Your task to perform on an android device: Clear the cart on costco.com. Search for dell xps on costco.com, select the first entry, and add it to the cart. Image 0: 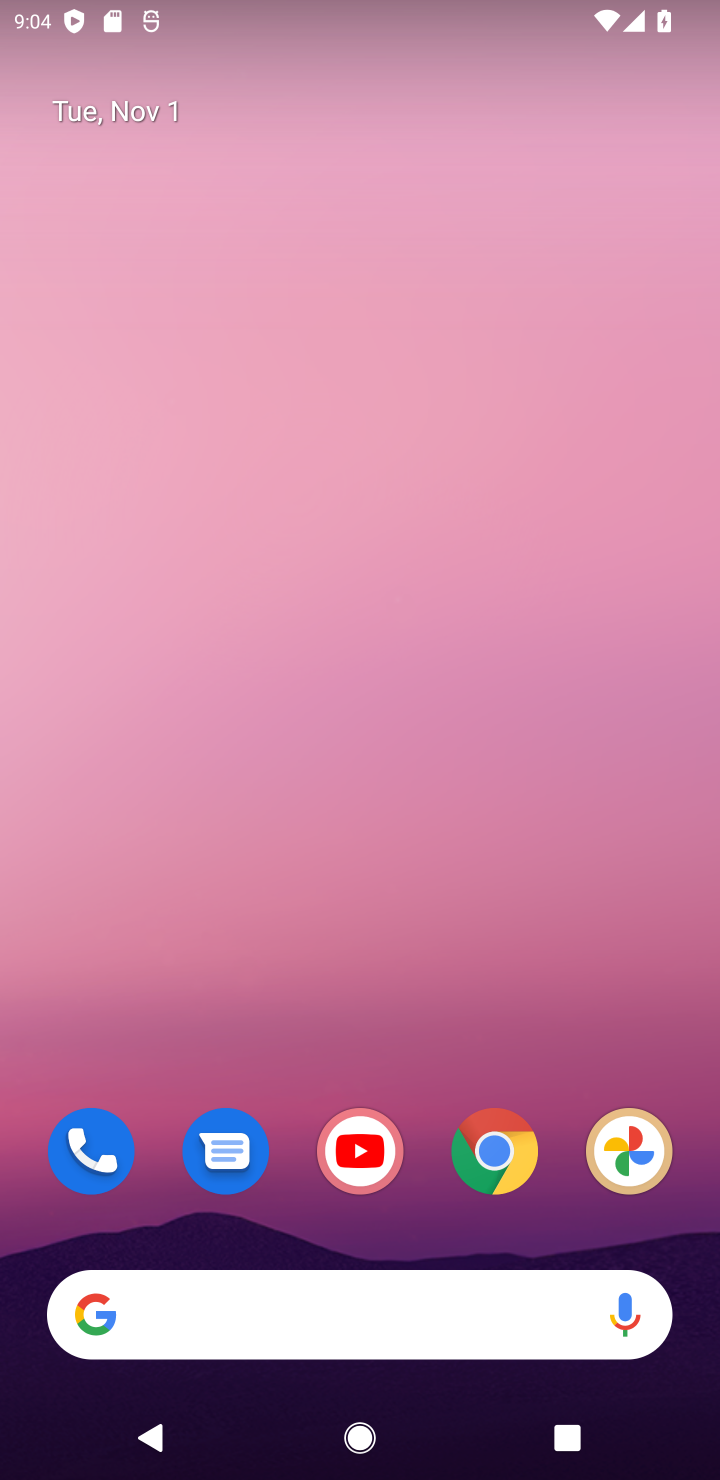
Step 0: click (479, 1148)
Your task to perform on an android device: Clear the cart on costco.com. Search for dell xps on costco.com, select the first entry, and add it to the cart. Image 1: 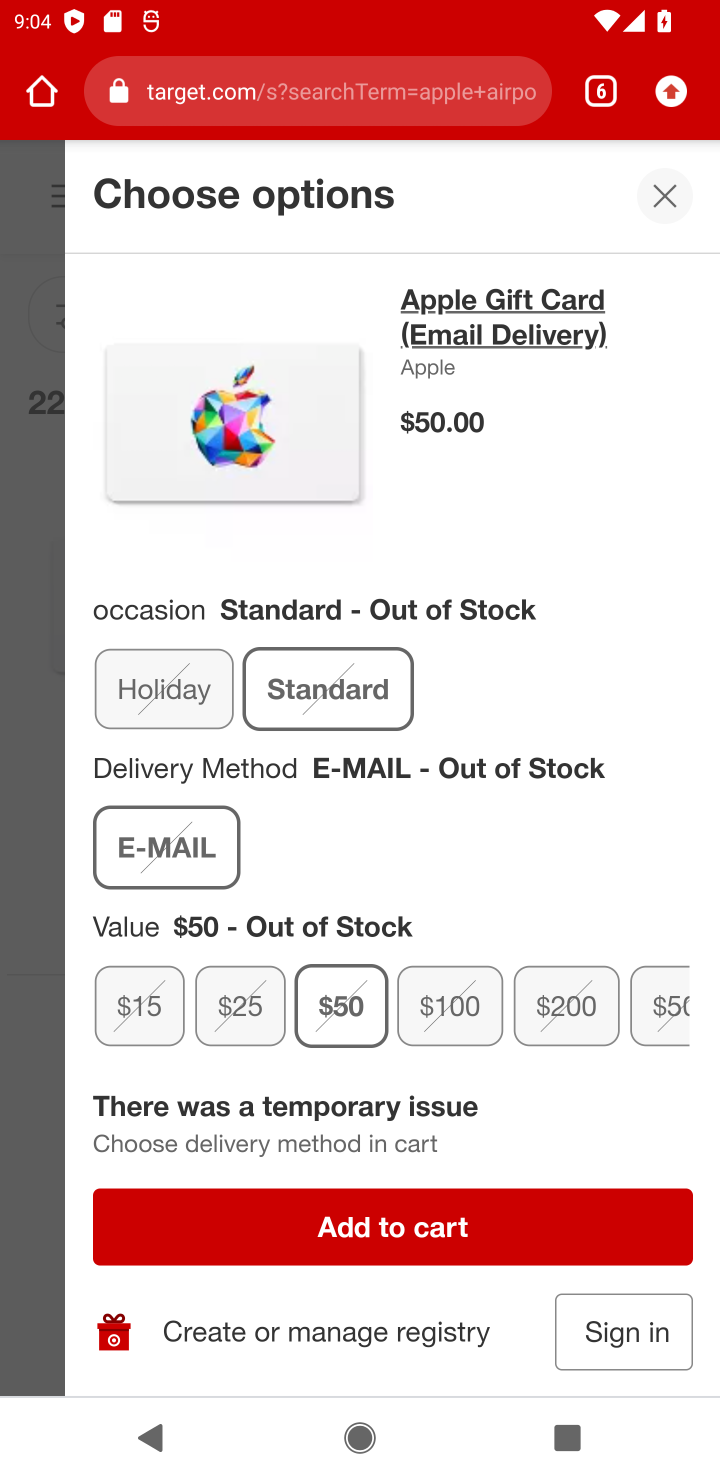
Step 1: click (594, 101)
Your task to perform on an android device: Clear the cart on costco.com. Search for dell xps on costco.com, select the first entry, and add it to the cart. Image 2: 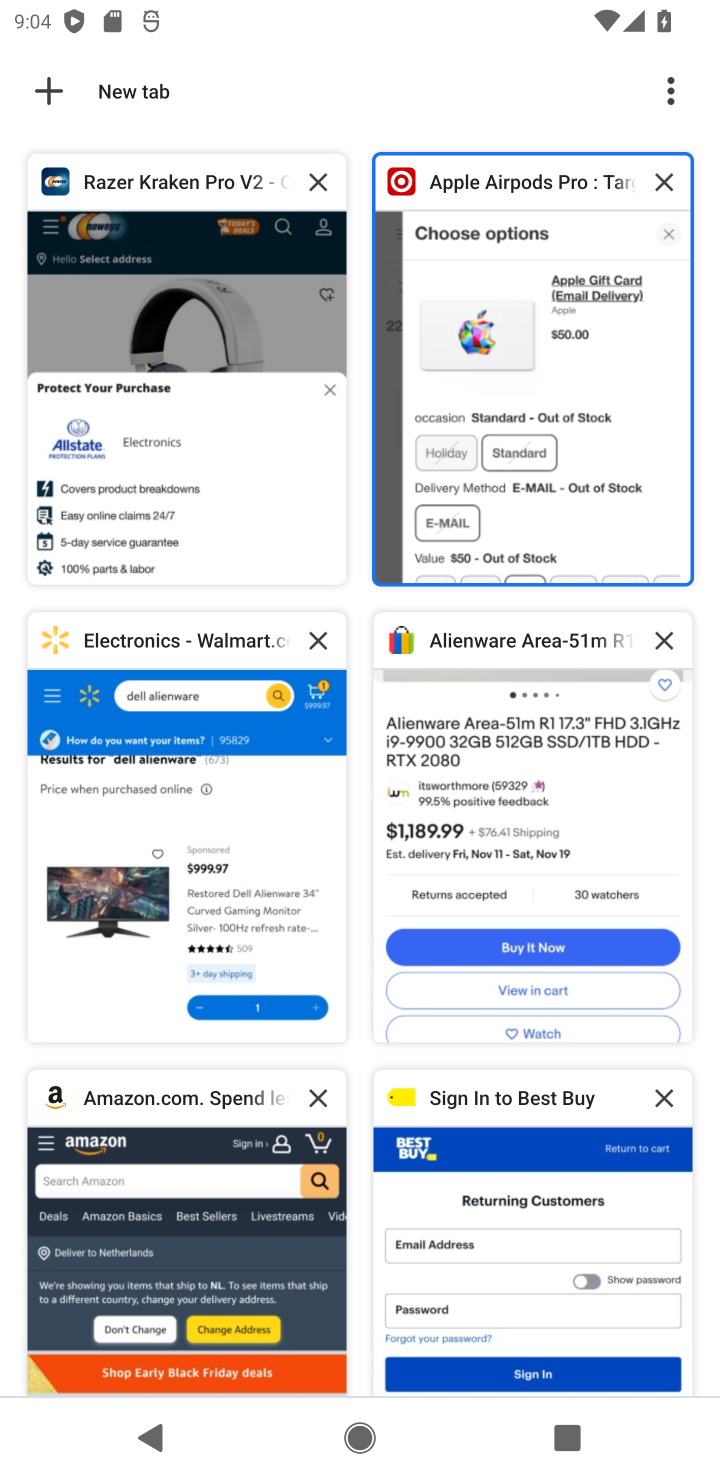
Step 2: click (52, 95)
Your task to perform on an android device: Clear the cart on costco.com. Search for dell xps on costco.com, select the first entry, and add it to the cart. Image 3: 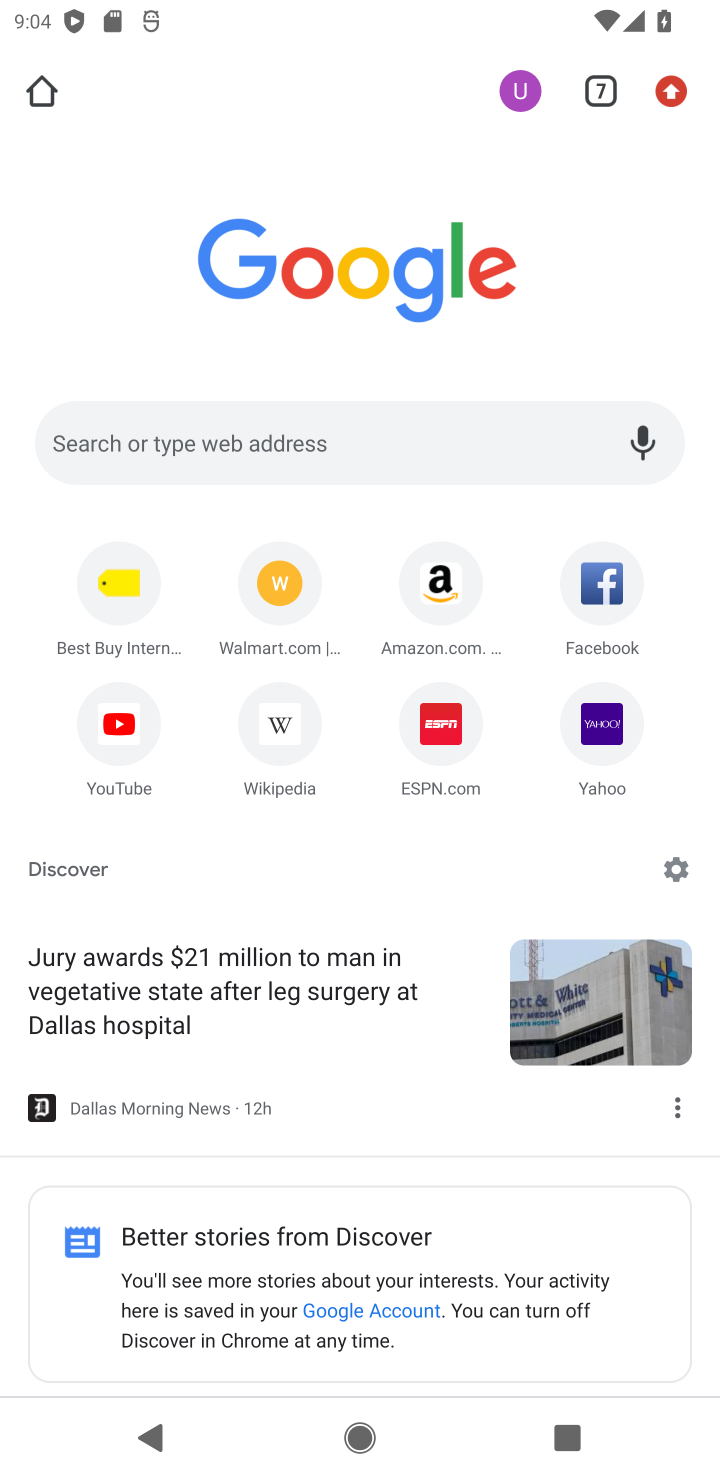
Step 3: click (388, 417)
Your task to perform on an android device: Clear the cart on costco.com. Search for dell xps on costco.com, select the first entry, and add it to the cart. Image 4: 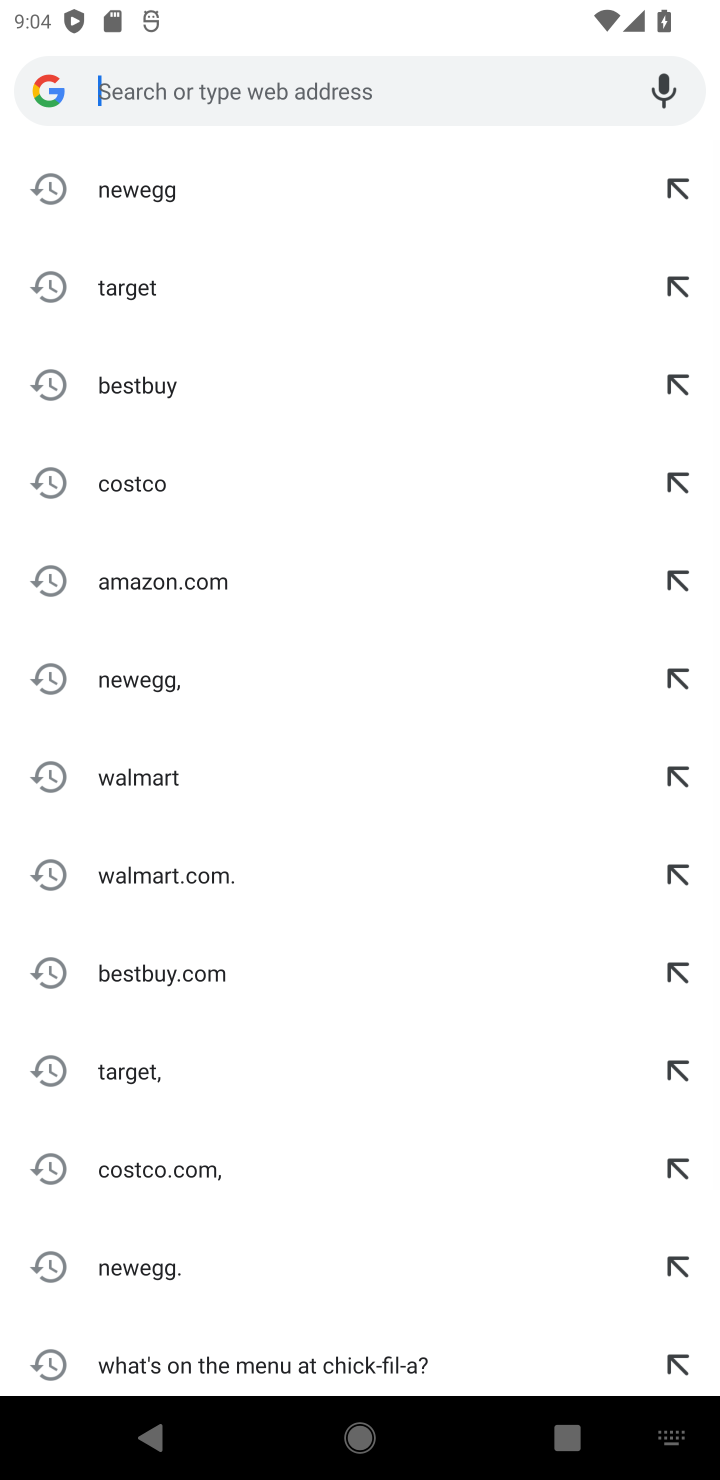
Step 4: type "costco"
Your task to perform on an android device: Clear the cart on costco.com. Search for dell xps on costco.com, select the first entry, and add it to the cart. Image 5: 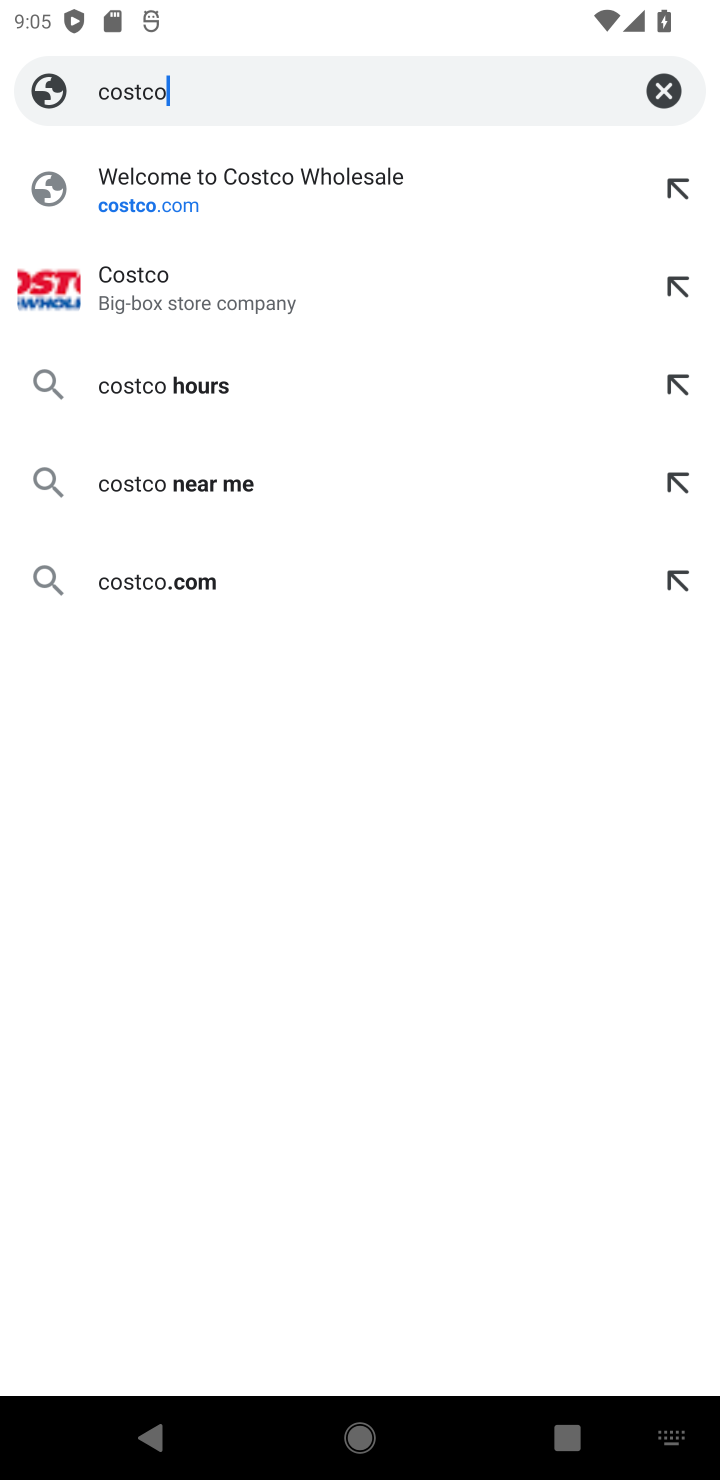
Step 5: click (155, 289)
Your task to perform on an android device: Clear the cart on costco.com. Search for dell xps on costco.com, select the first entry, and add it to the cart. Image 6: 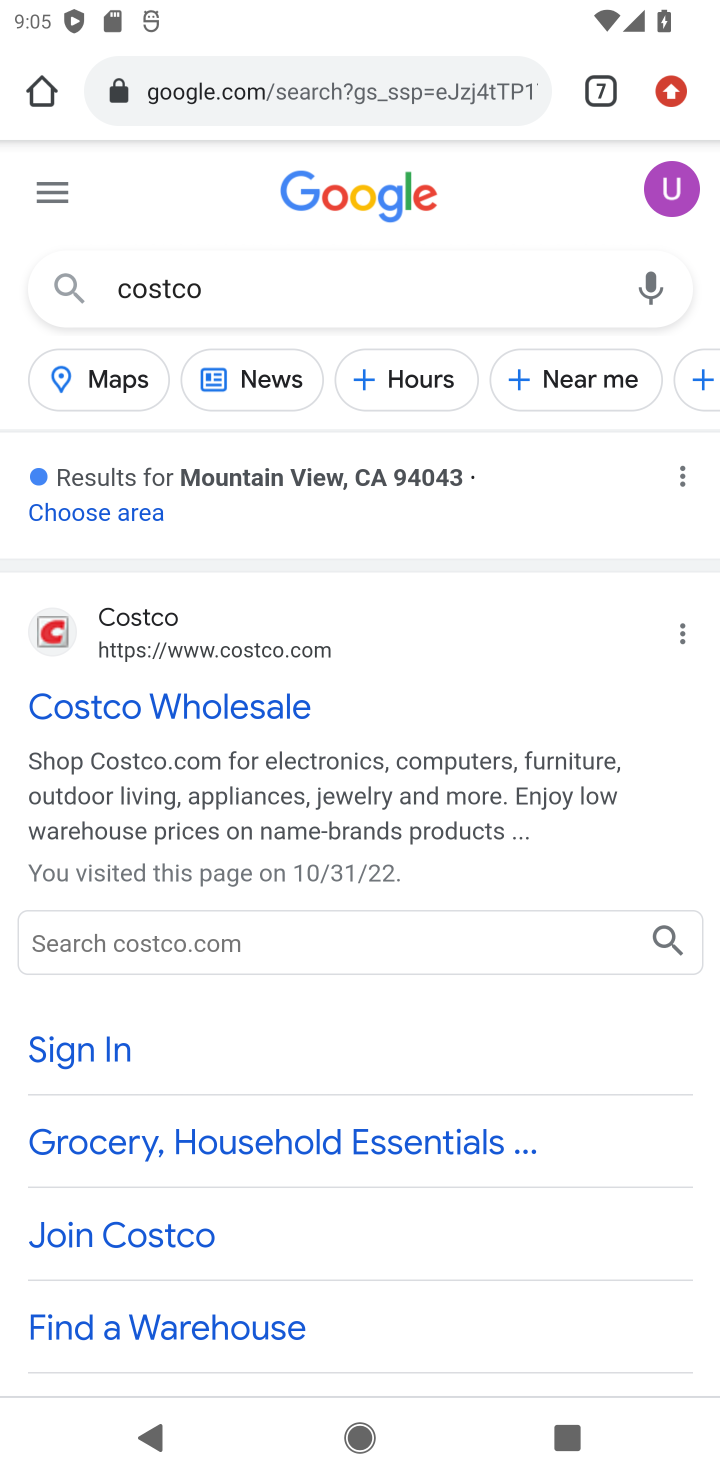
Step 6: click (78, 699)
Your task to perform on an android device: Clear the cart on costco.com. Search for dell xps on costco.com, select the first entry, and add it to the cart. Image 7: 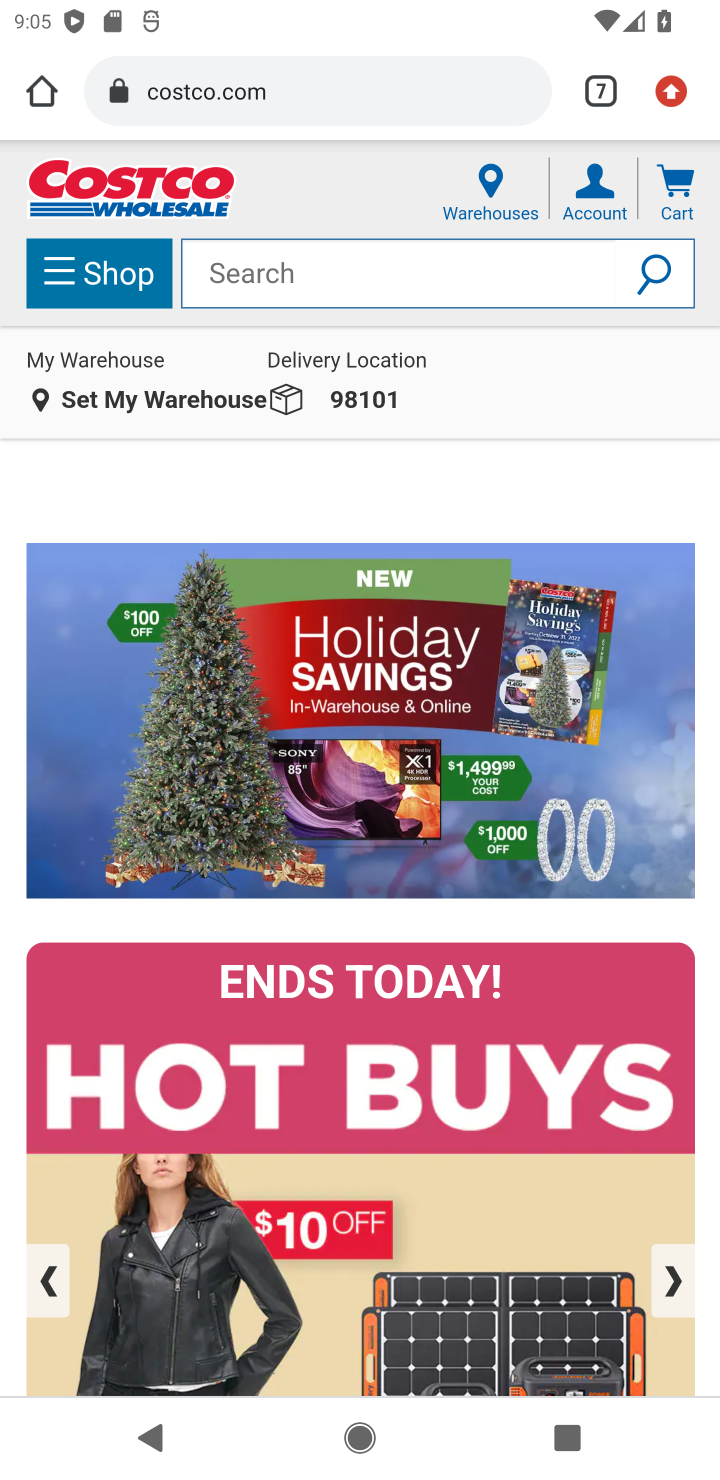
Step 7: click (274, 275)
Your task to perform on an android device: Clear the cart on costco.com. Search for dell xps on costco.com, select the first entry, and add it to the cart. Image 8: 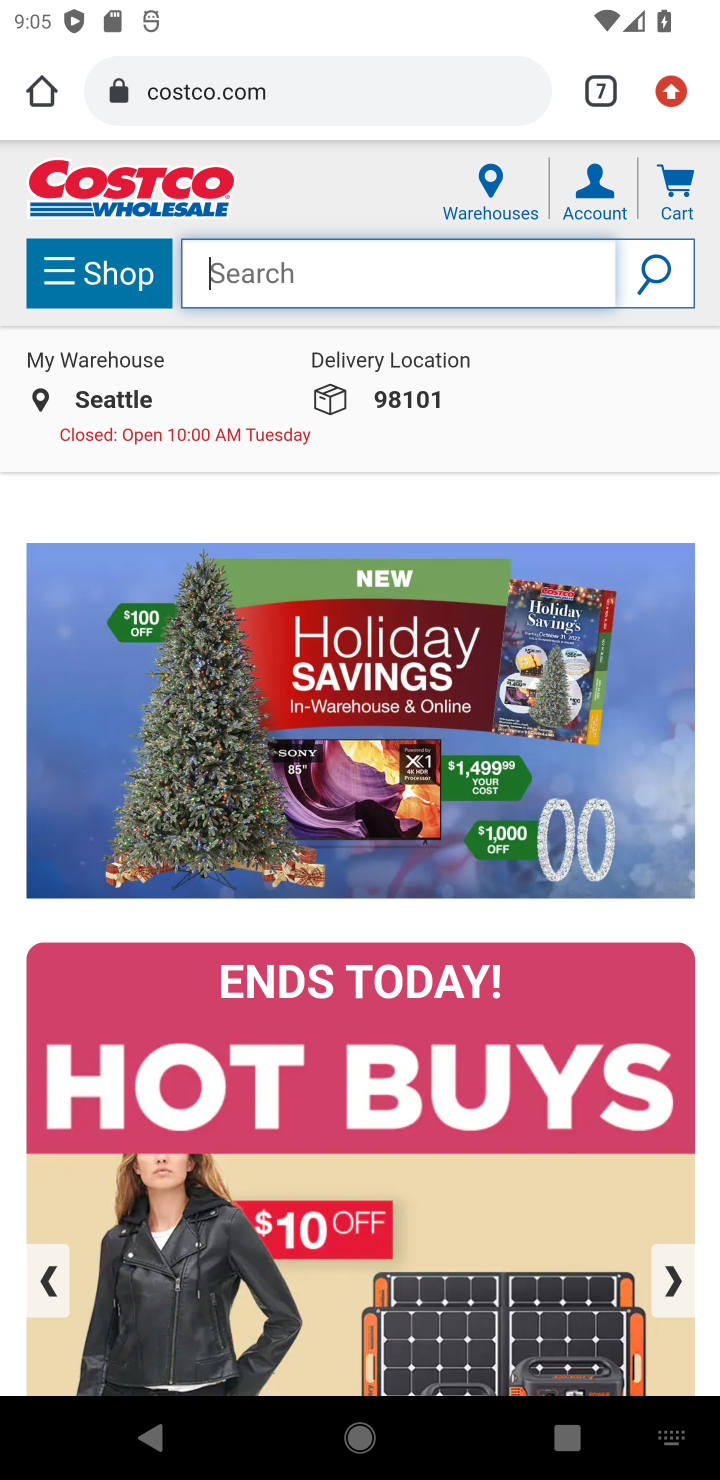
Step 8: type "dell xps"
Your task to perform on an android device: Clear the cart on costco.com. Search for dell xps on costco.com, select the first entry, and add it to the cart. Image 9: 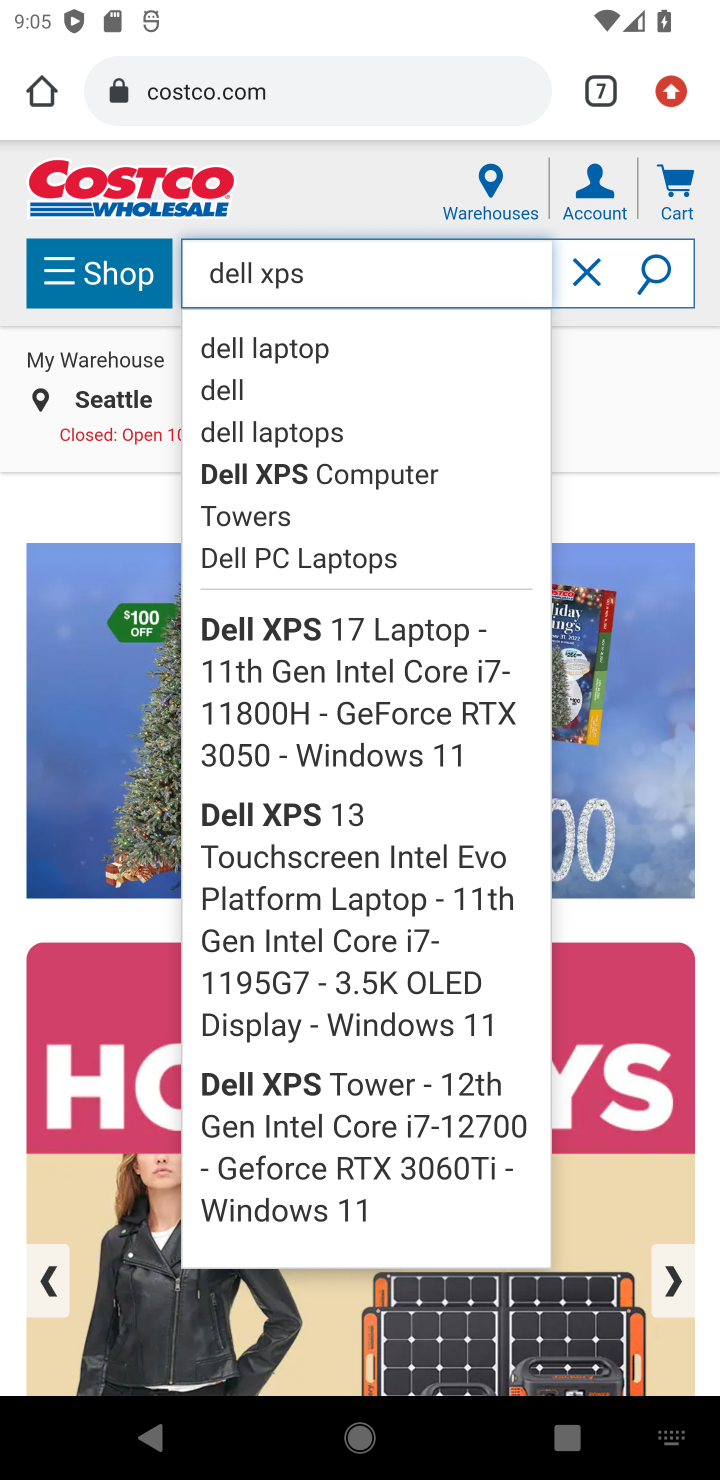
Step 9: click (364, 657)
Your task to perform on an android device: Clear the cart on costco.com. Search for dell xps on costco.com, select the first entry, and add it to the cart. Image 10: 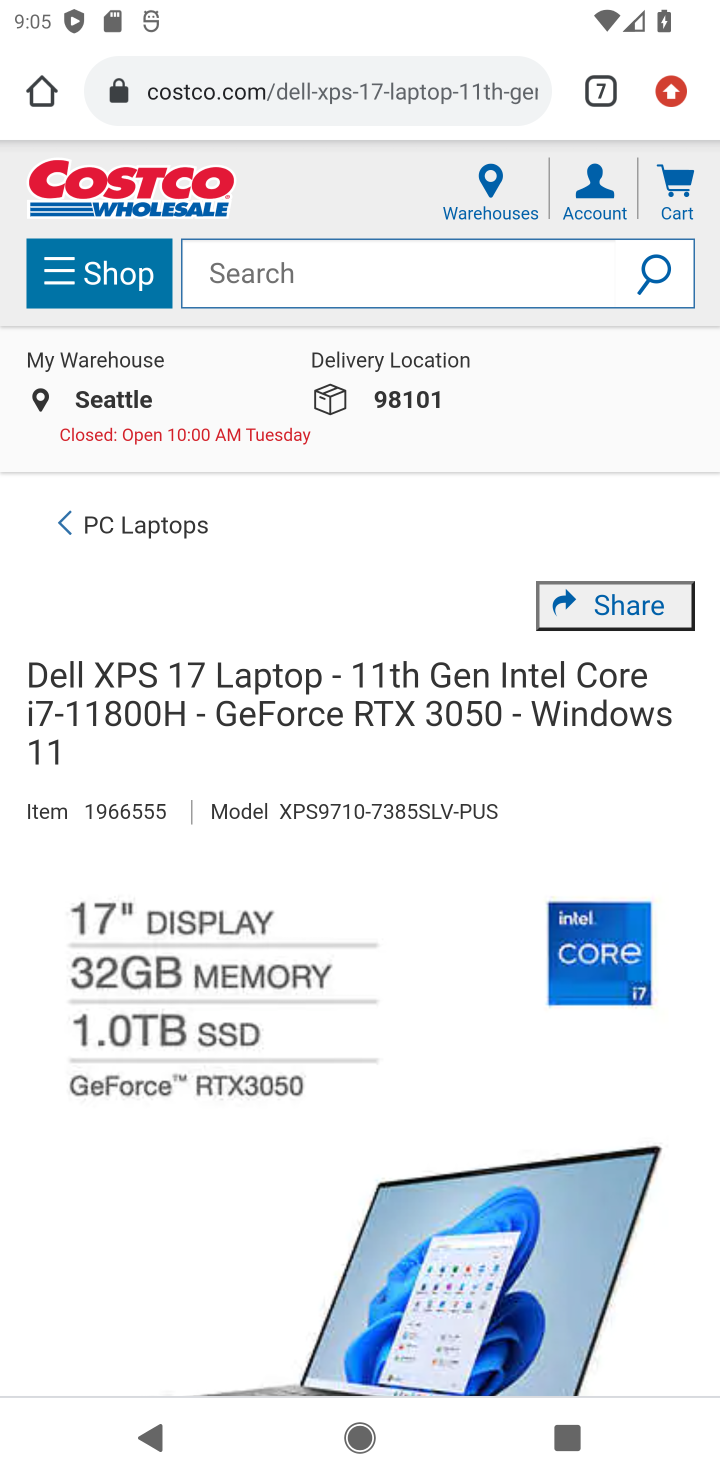
Step 10: drag from (465, 1213) to (525, 48)
Your task to perform on an android device: Clear the cart on costco.com. Search for dell xps on costco.com, select the first entry, and add it to the cart. Image 11: 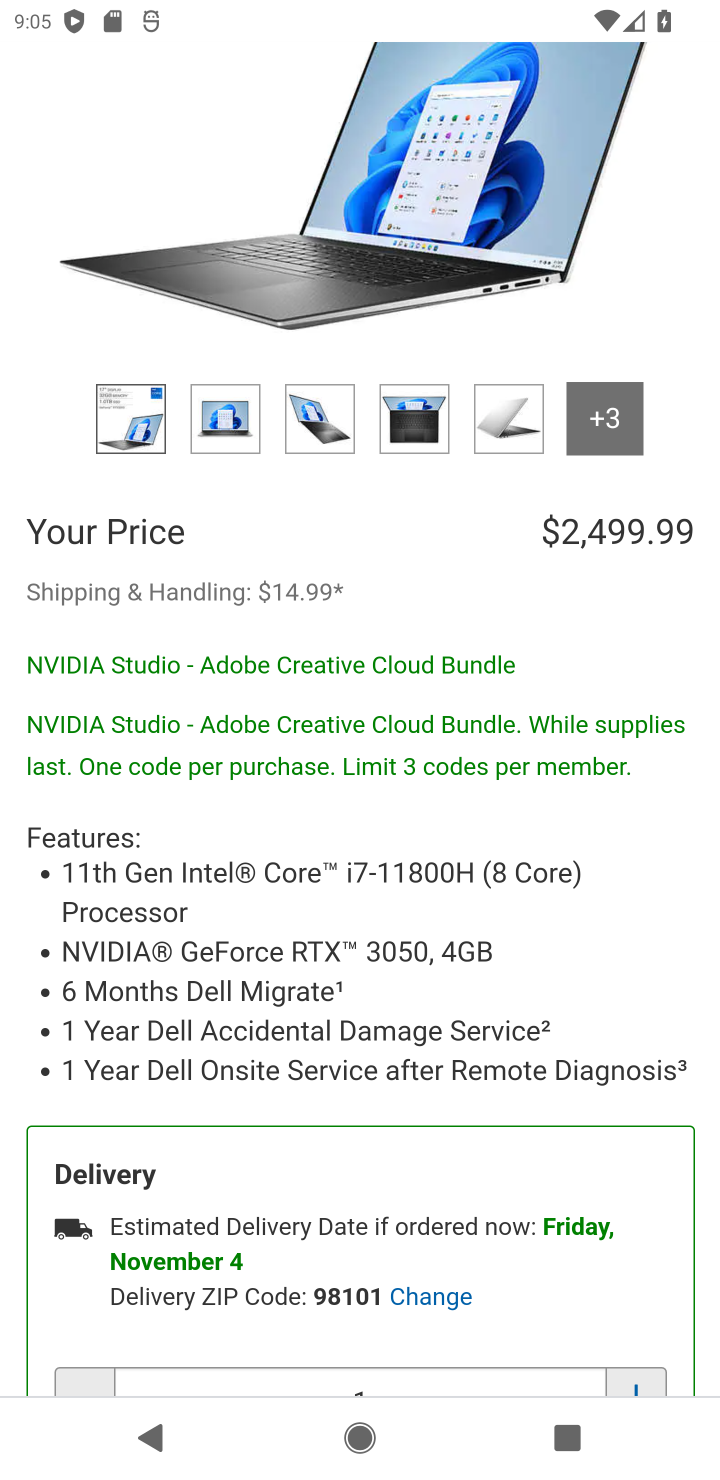
Step 11: drag from (460, 1024) to (534, 202)
Your task to perform on an android device: Clear the cart on costco.com. Search for dell xps on costco.com, select the first entry, and add it to the cart. Image 12: 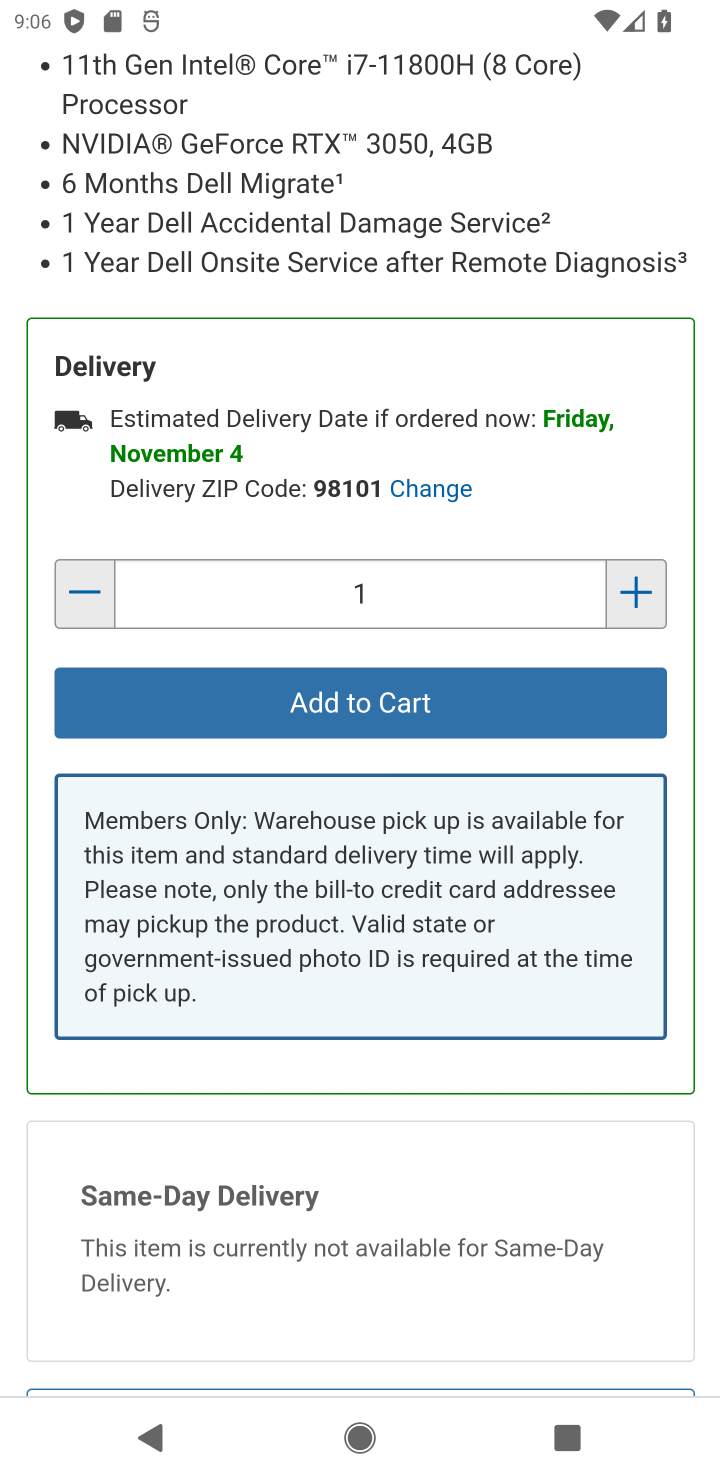
Step 12: click (419, 706)
Your task to perform on an android device: Clear the cart on costco.com. Search for dell xps on costco.com, select the first entry, and add it to the cart. Image 13: 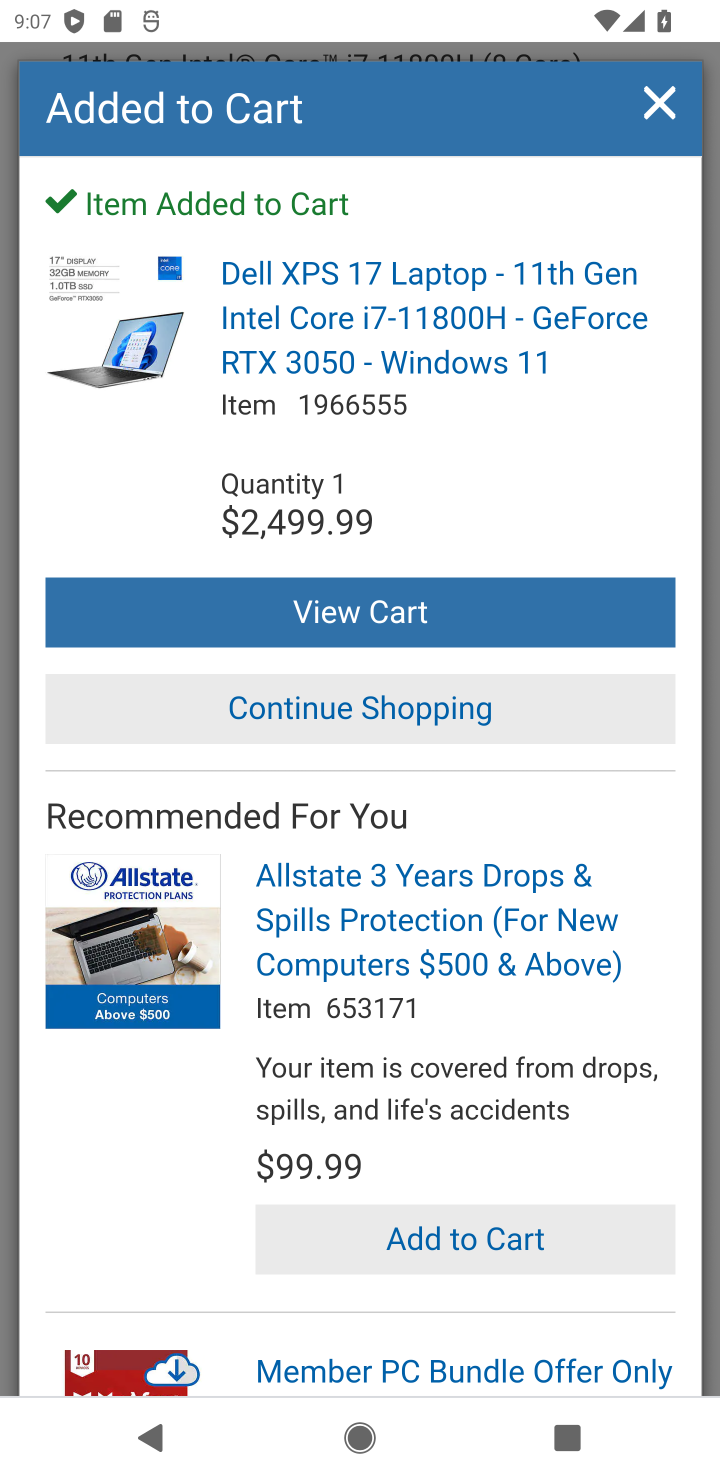
Step 13: task complete